Your task to perform on an android device: Go to eBay Image 0: 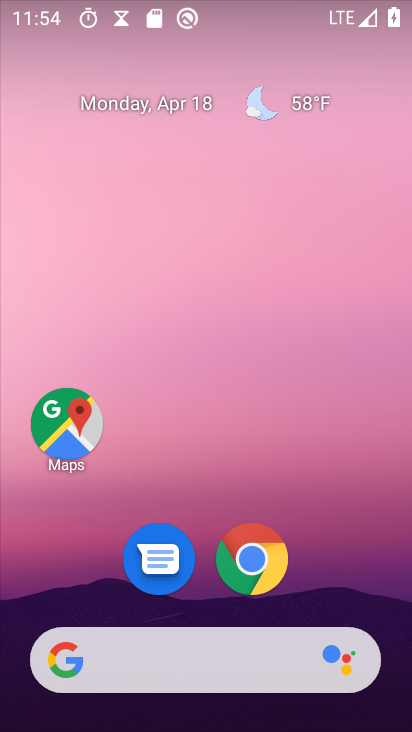
Step 0: click (249, 581)
Your task to perform on an android device: Go to eBay Image 1: 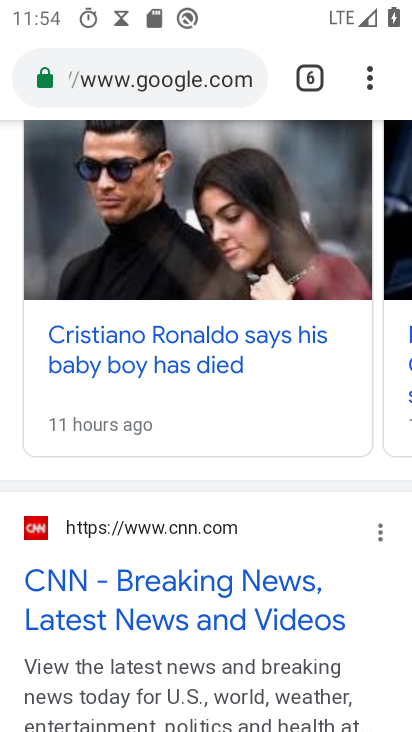
Step 1: click (312, 74)
Your task to perform on an android device: Go to eBay Image 2: 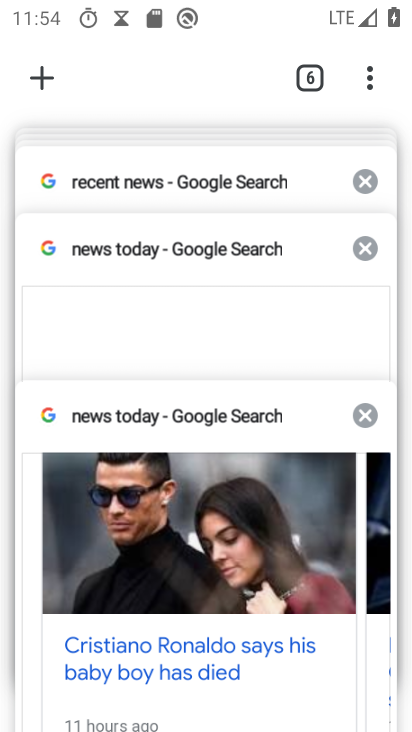
Step 2: click (31, 74)
Your task to perform on an android device: Go to eBay Image 3: 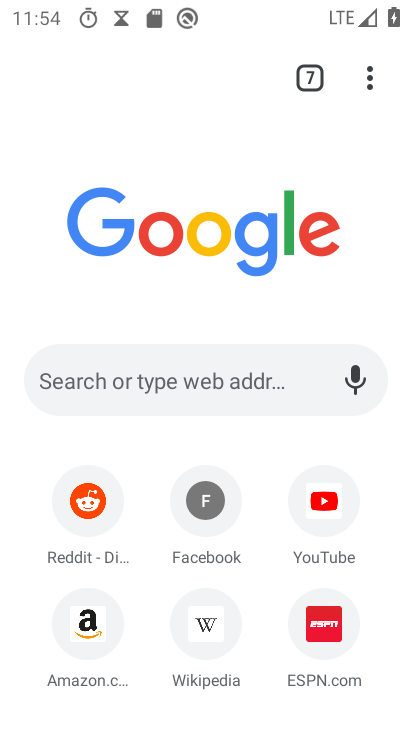
Step 3: click (155, 383)
Your task to perform on an android device: Go to eBay Image 4: 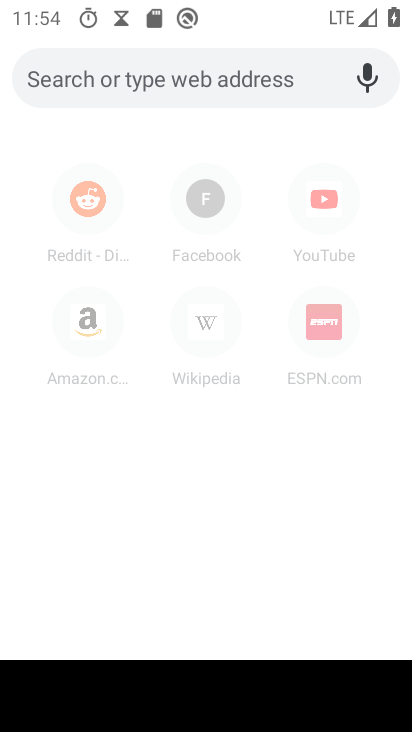
Step 4: type "ebay"
Your task to perform on an android device: Go to eBay Image 5: 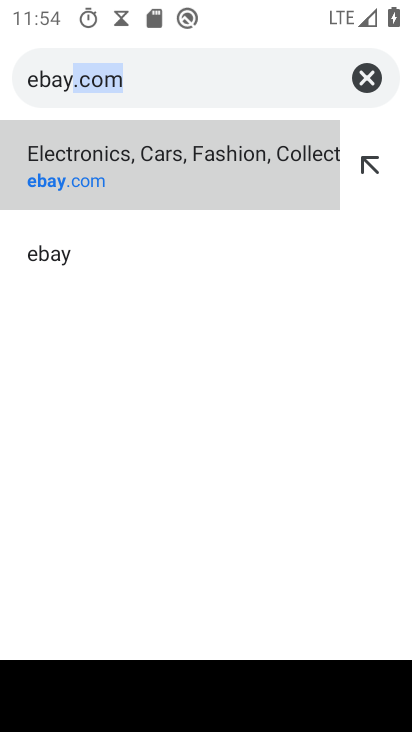
Step 5: click (92, 182)
Your task to perform on an android device: Go to eBay Image 6: 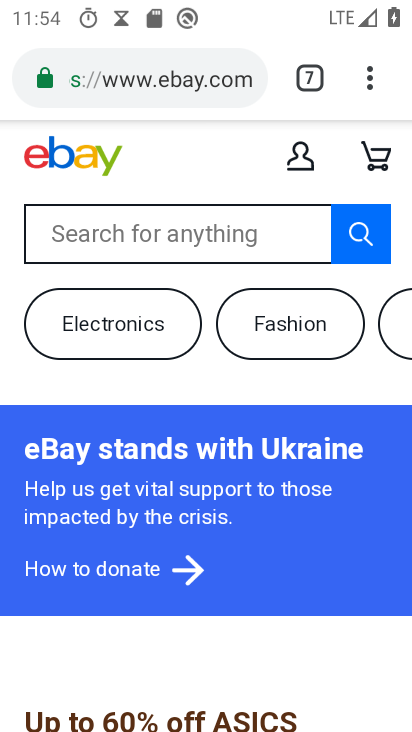
Step 6: task complete